Your task to perform on an android device: turn on wifi Image 0: 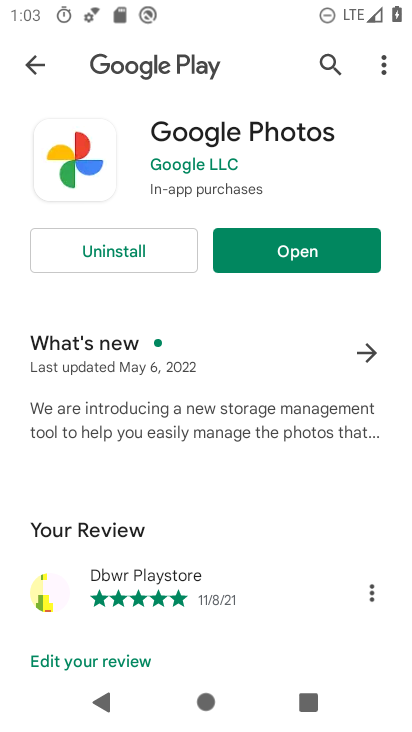
Step 0: press home button
Your task to perform on an android device: turn on wifi Image 1: 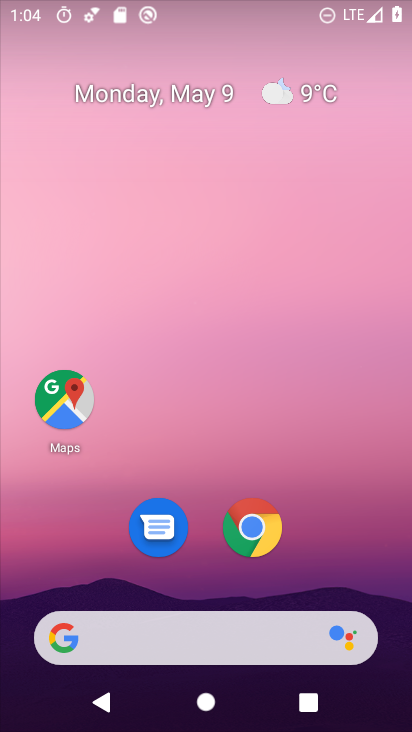
Step 1: drag from (121, 52) to (135, 550)
Your task to perform on an android device: turn on wifi Image 2: 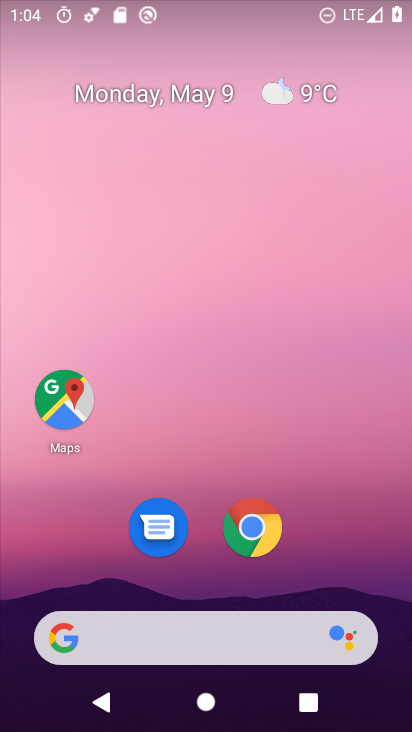
Step 2: drag from (120, 7) to (173, 526)
Your task to perform on an android device: turn on wifi Image 3: 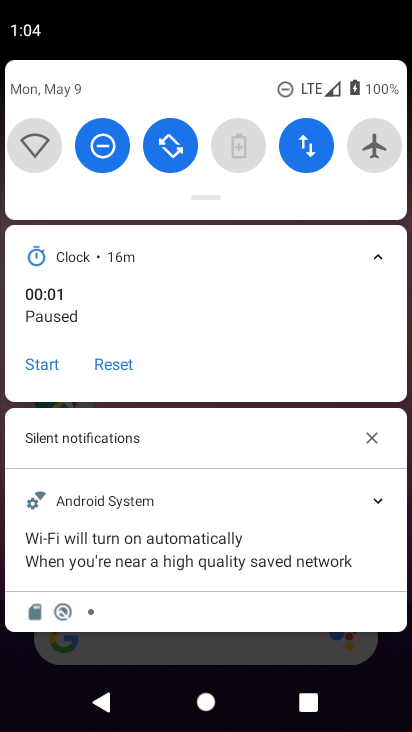
Step 3: click (30, 147)
Your task to perform on an android device: turn on wifi Image 4: 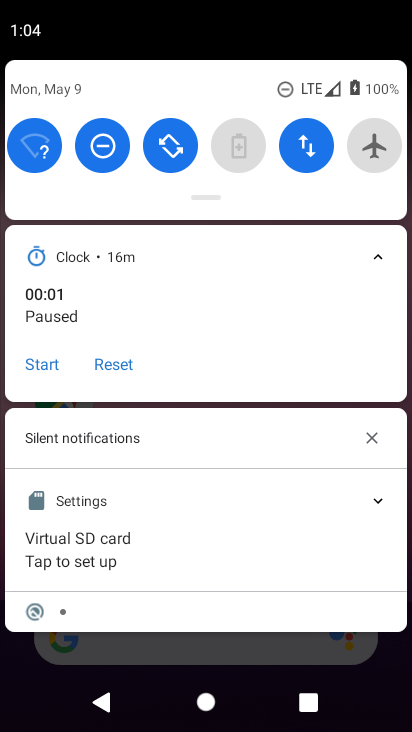
Step 4: task complete